Your task to perform on an android device: Open the calendar and show me this week's events? Image 0: 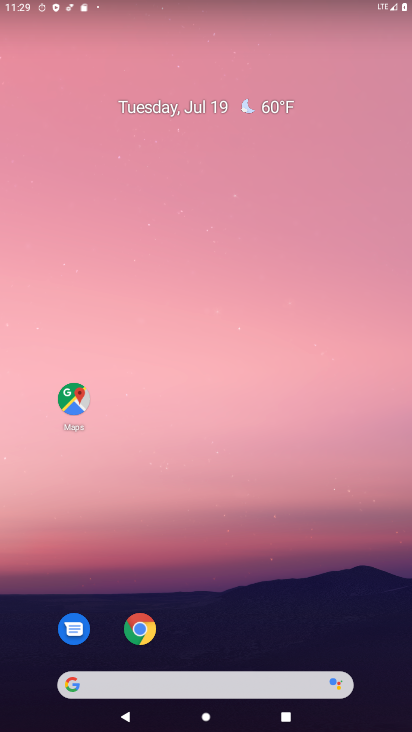
Step 0: drag from (309, 546) to (280, 77)
Your task to perform on an android device: Open the calendar and show me this week's events? Image 1: 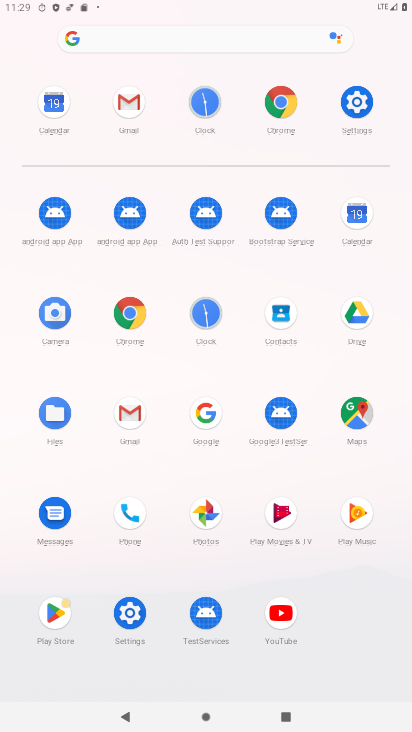
Step 1: click (360, 222)
Your task to perform on an android device: Open the calendar and show me this week's events? Image 2: 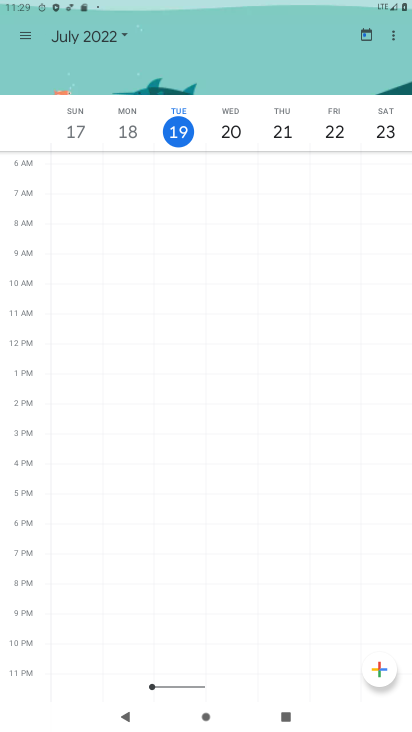
Step 2: task complete